Your task to perform on an android device: toggle notifications settings in the gmail app Image 0: 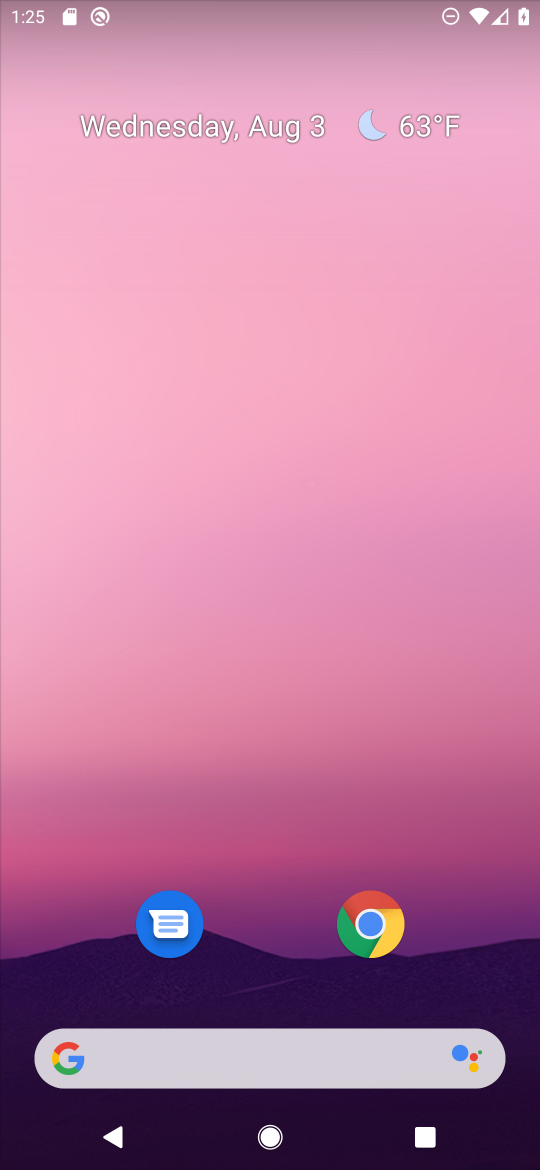
Step 0: drag from (312, 970) to (312, 256)
Your task to perform on an android device: toggle notifications settings in the gmail app Image 1: 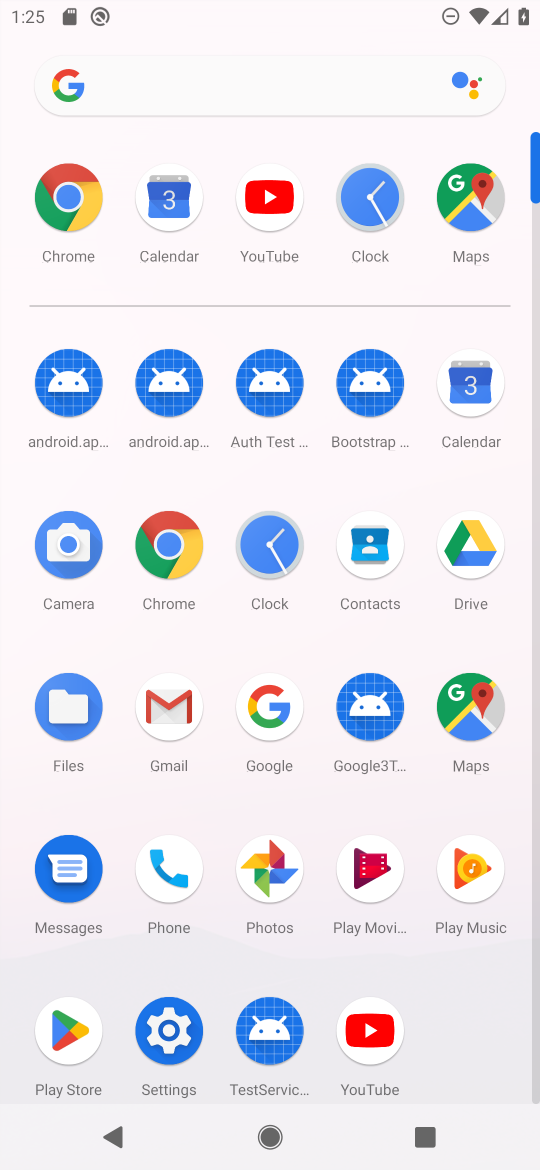
Step 1: click (161, 708)
Your task to perform on an android device: toggle notifications settings in the gmail app Image 2: 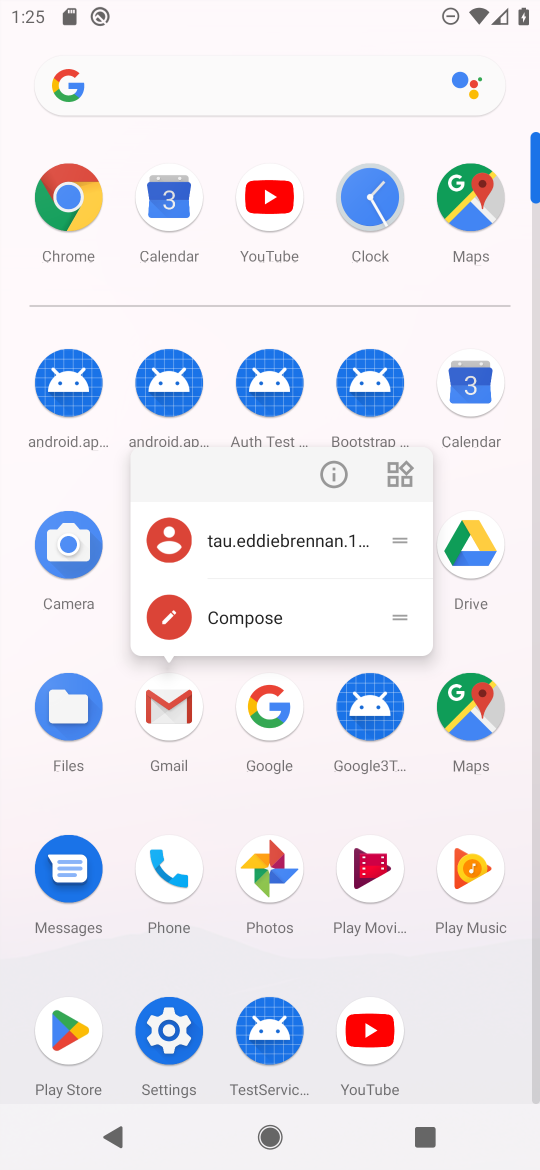
Step 2: click (172, 713)
Your task to perform on an android device: toggle notifications settings in the gmail app Image 3: 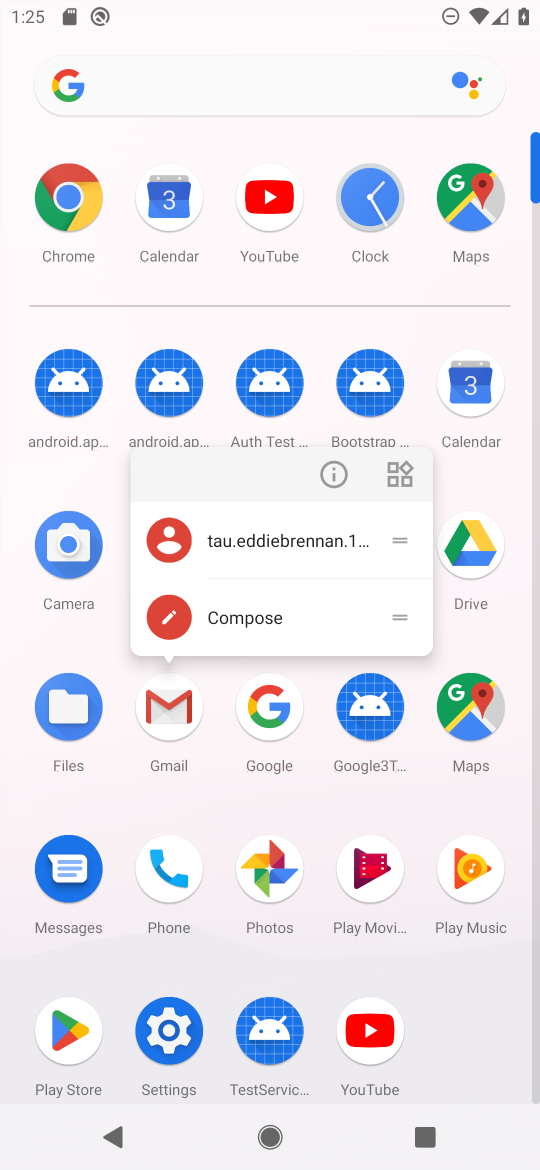
Step 3: click (338, 474)
Your task to perform on an android device: toggle notifications settings in the gmail app Image 4: 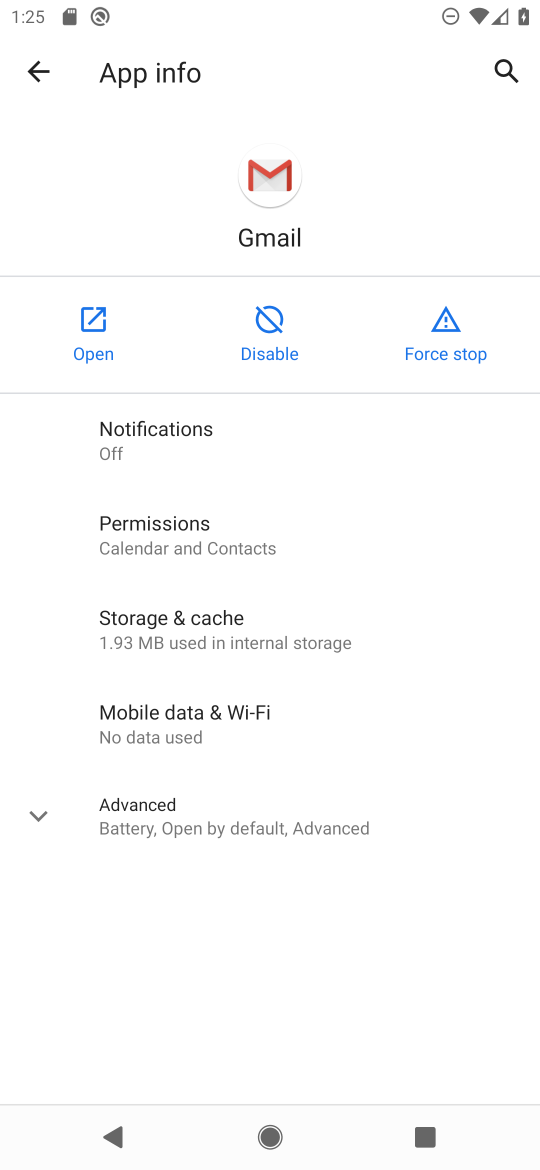
Step 4: click (152, 442)
Your task to perform on an android device: toggle notifications settings in the gmail app Image 5: 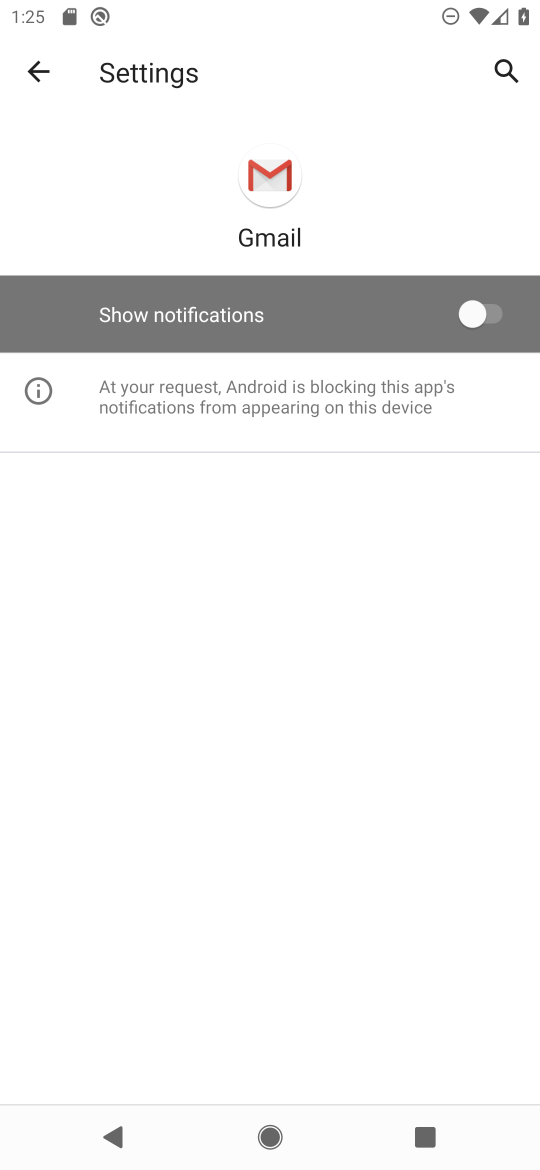
Step 5: click (474, 312)
Your task to perform on an android device: toggle notifications settings in the gmail app Image 6: 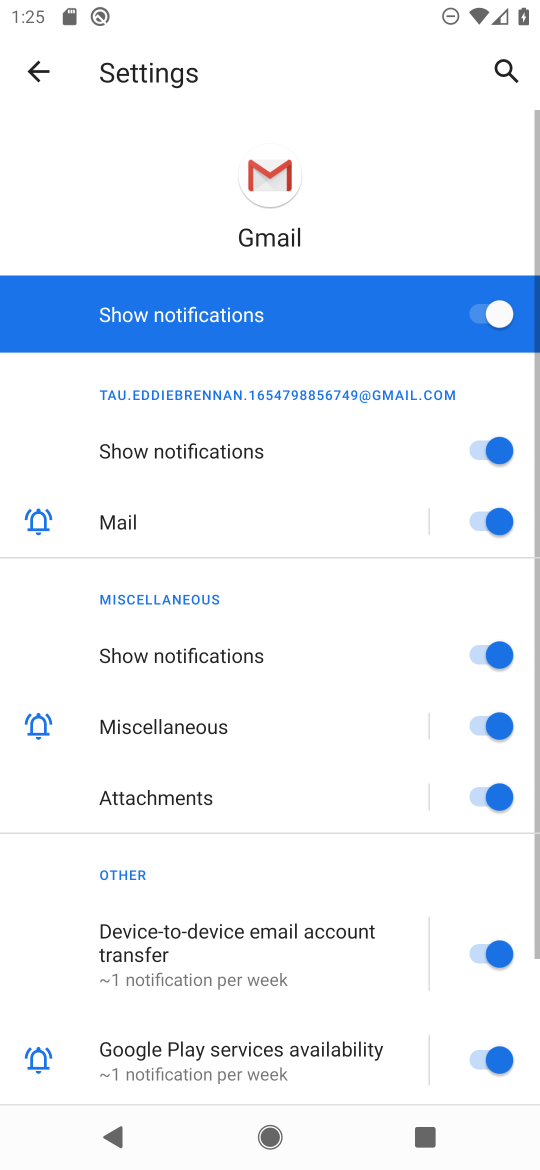
Step 6: task complete